Your task to perform on an android device: change timer sound Image 0: 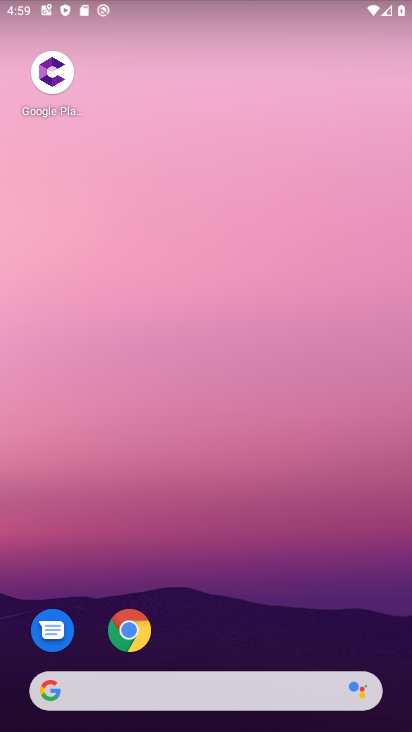
Step 0: drag from (322, 603) to (289, 148)
Your task to perform on an android device: change timer sound Image 1: 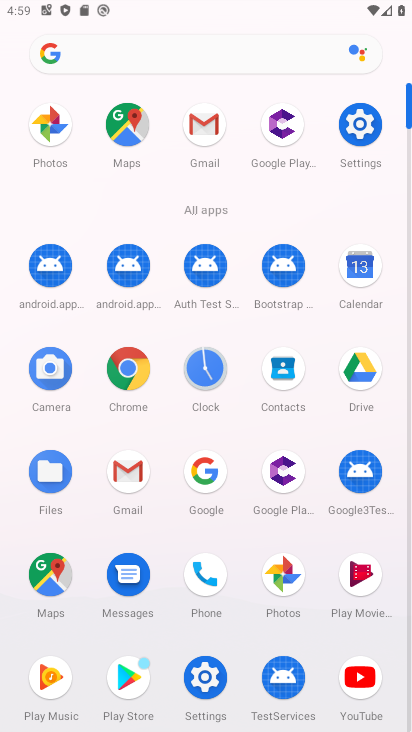
Step 1: click (202, 372)
Your task to perform on an android device: change timer sound Image 2: 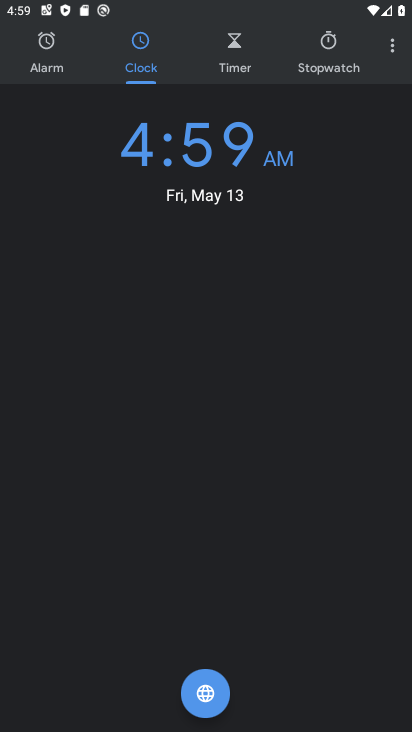
Step 2: click (398, 45)
Your task to perform on an android device: change timer sound Image 3: 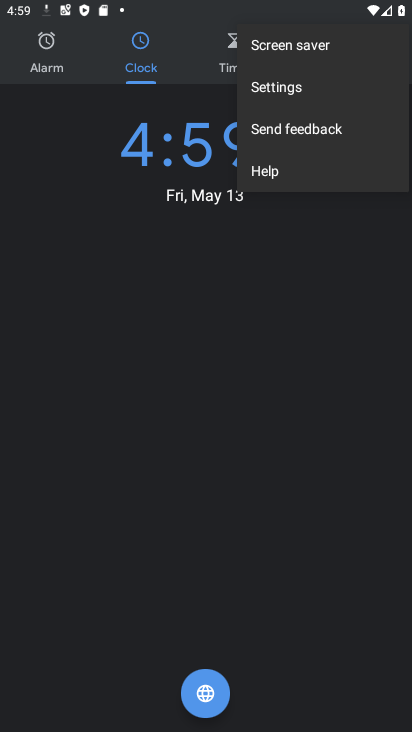
Step 3: click (265, 71)
Your task to perform on an android device: change timer sound Image 4: 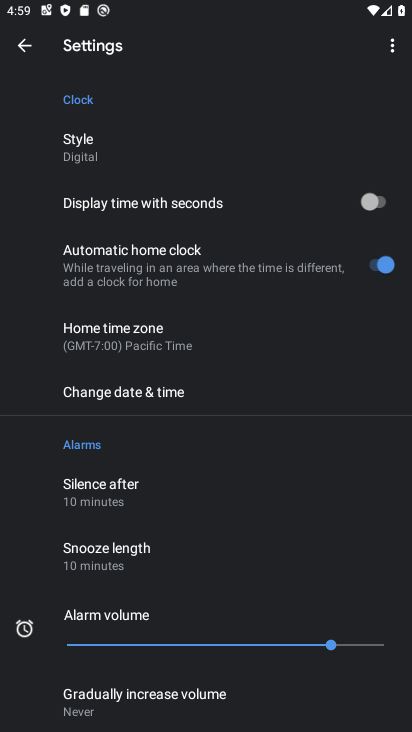
Step 4: drag from (263, 517) to (329, 98)
Your task to perform on an android device: change timer sound Image 5: 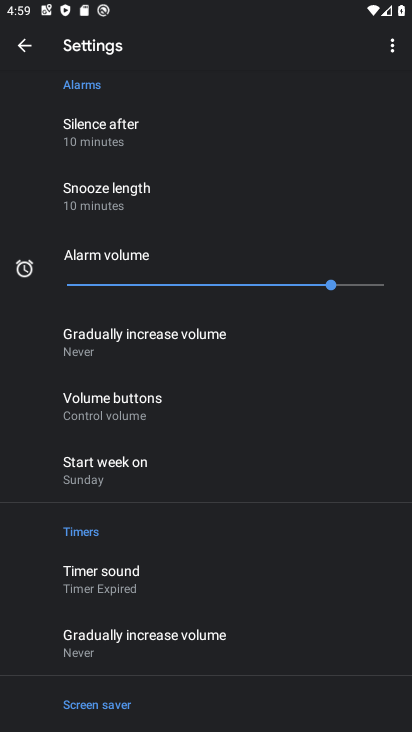
Step 5: click (152, 573)
Your task to perform on an android device: change timer sound Image 6: 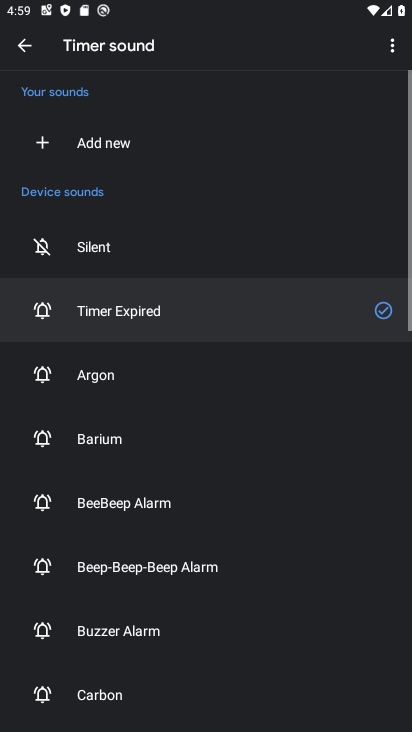
Step 6: click (131, 377)
Your task to perform on an android device: change timer sound Image 7: 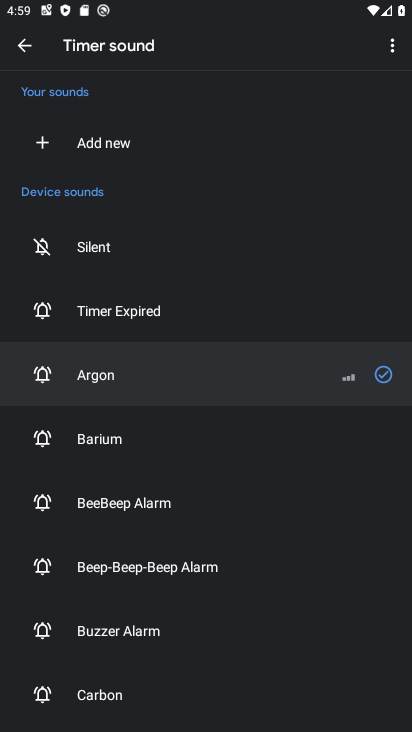
Step 7: task complete